Your task to perform on an android device: change the clock display to digital Image 0: 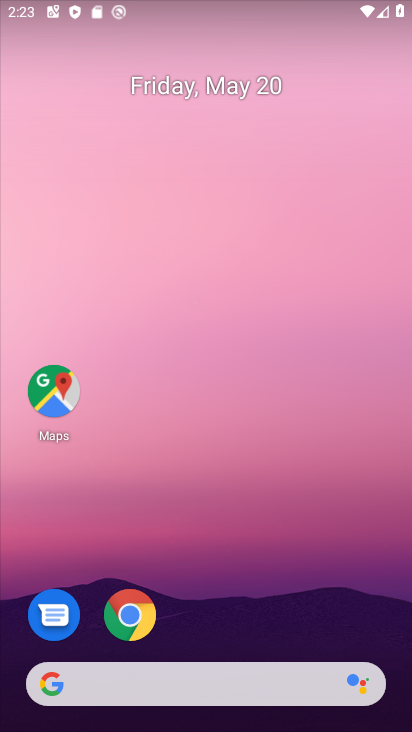
Step 0: drag from (243, 601) to (225, 193)
Your task to perform on an android device: change the clock display to digital Image 1: 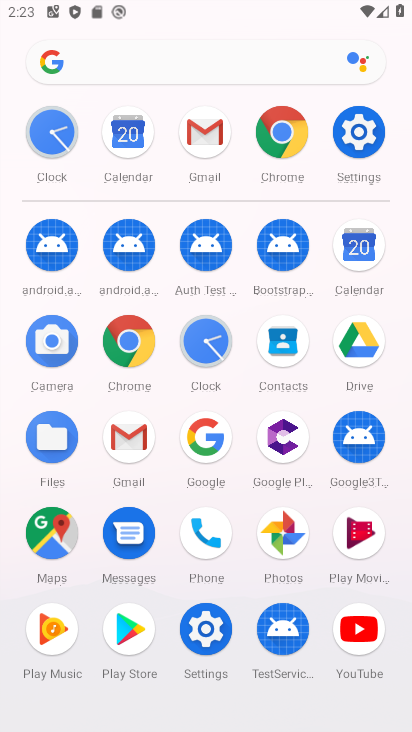
Step 1: drag from (180, 519) to (173, 414)
Your task to perform on an android device: change the clock display to digital Image 2: 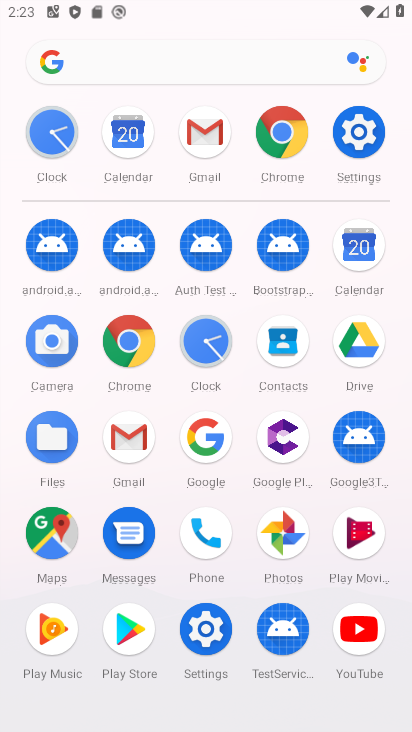
Step 2: click (213, 321)
Your task to perform on an android device: change the clock display to digital Image 3: 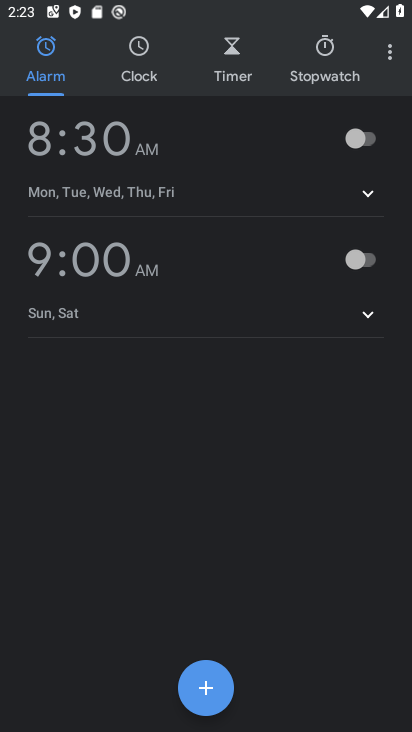
Step 3: click (384, 51)
Your task to perform on an android device: change the clock display to digital Image 4: 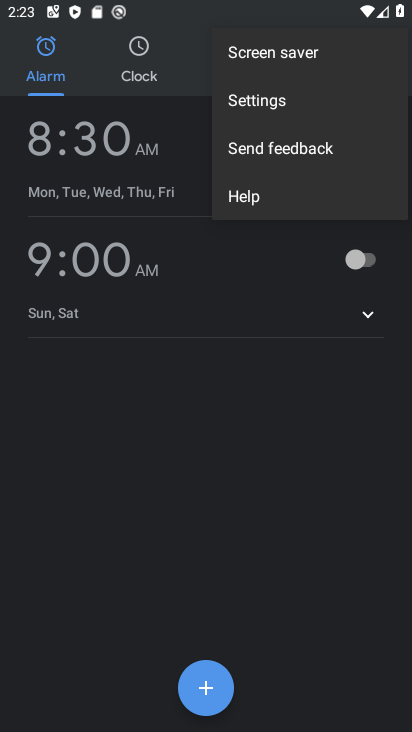
Step 4: click (282, 105)
Your task to perform on an android device: change the clock display to digital Image 5: 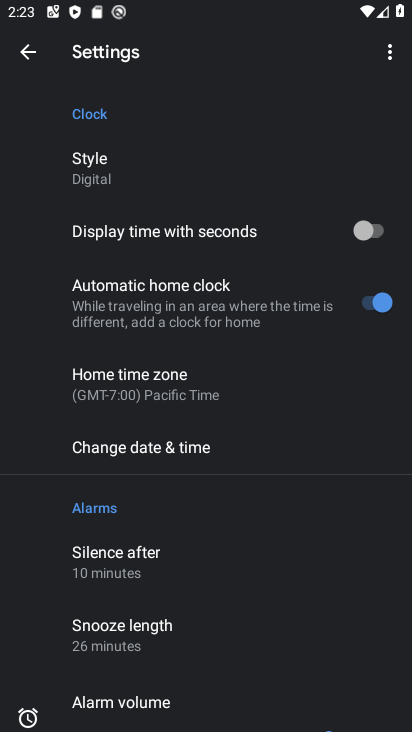
Step 5: click (140, 163)
Your task to perform on an android device: change the clock display to digital Image 6: 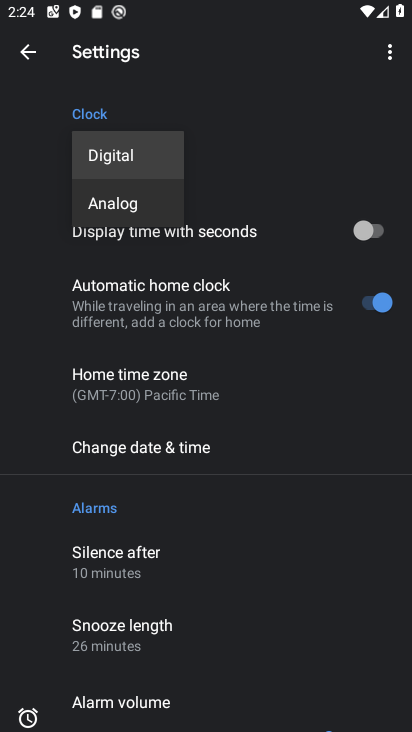
Step 6: task complete